Your task to perform on an android device: install app "Duolingo: language lessons" Image 0: 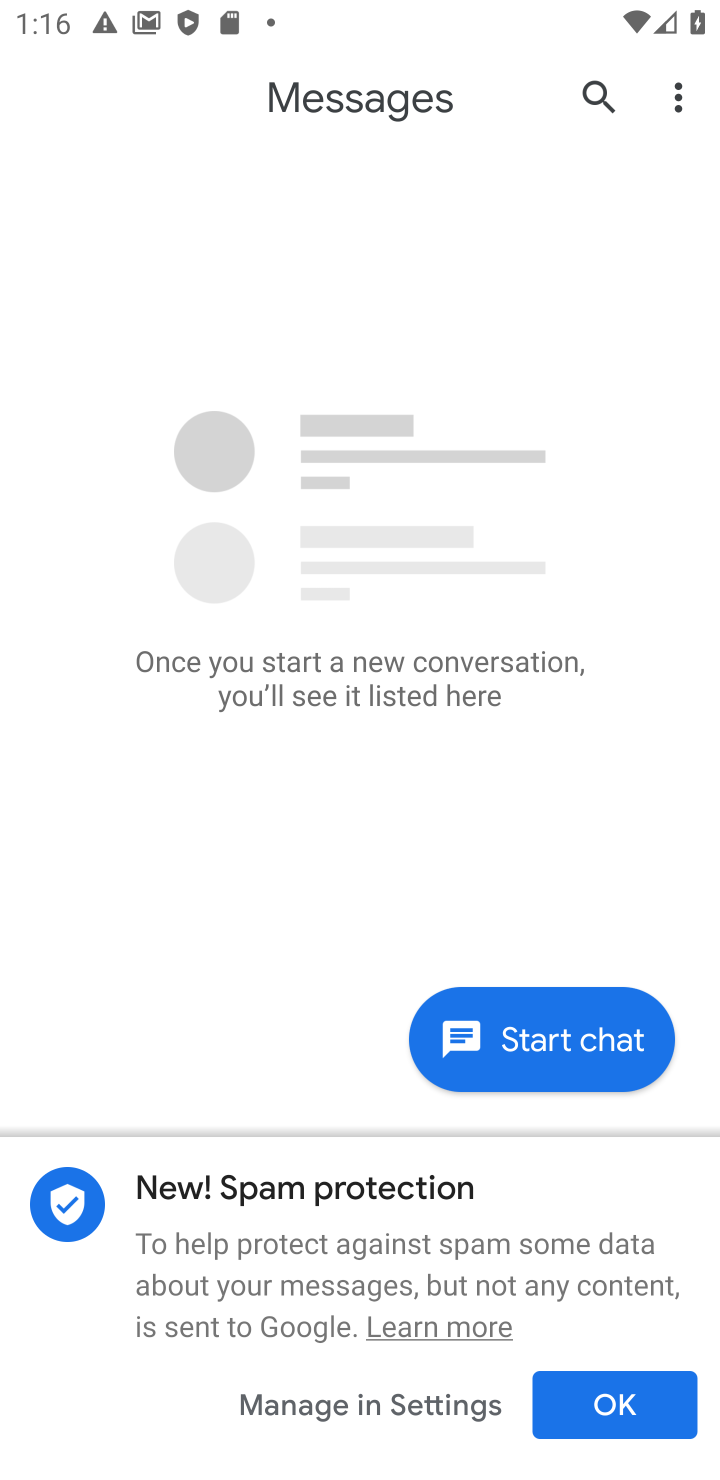
Step 0: press home button
Your task to perform on an android device: install app "Duolingo: language lessons" Image 1: 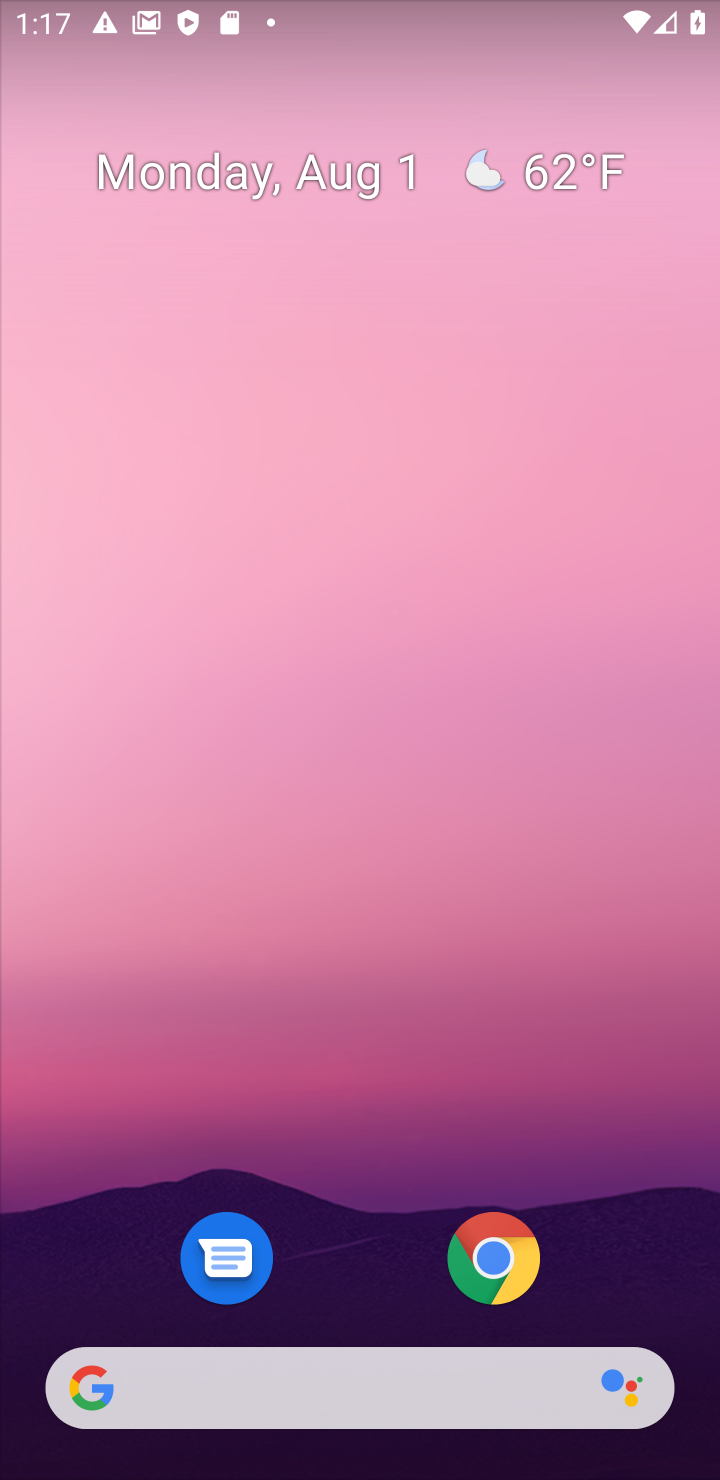
Step 1: drag from (433, 751) to (522, 19)
Your task to perform on an android device: install app "Duolingo: language lessons" Image 2: 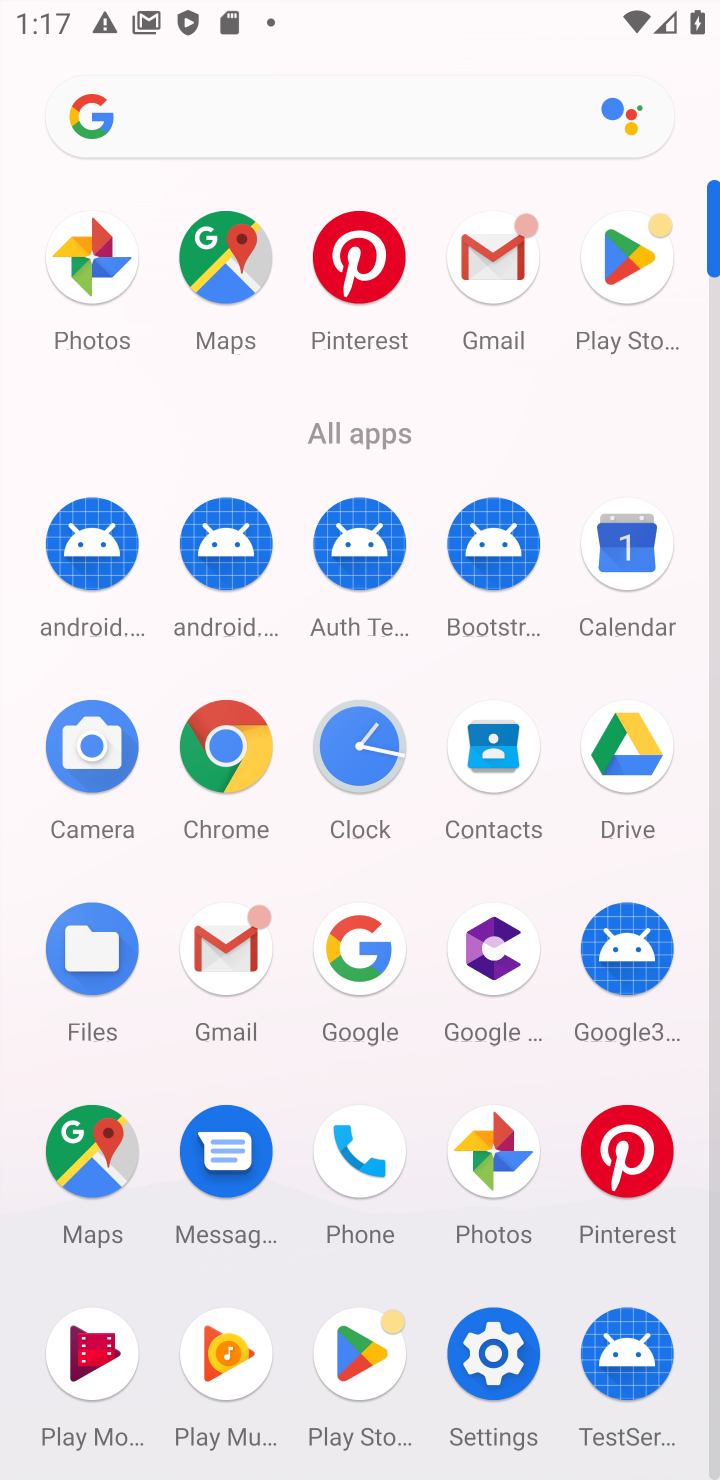
Step 2: click (616, 257)
Your task to perform on an android device: install app "Duolingo: language lessons" Image 3: 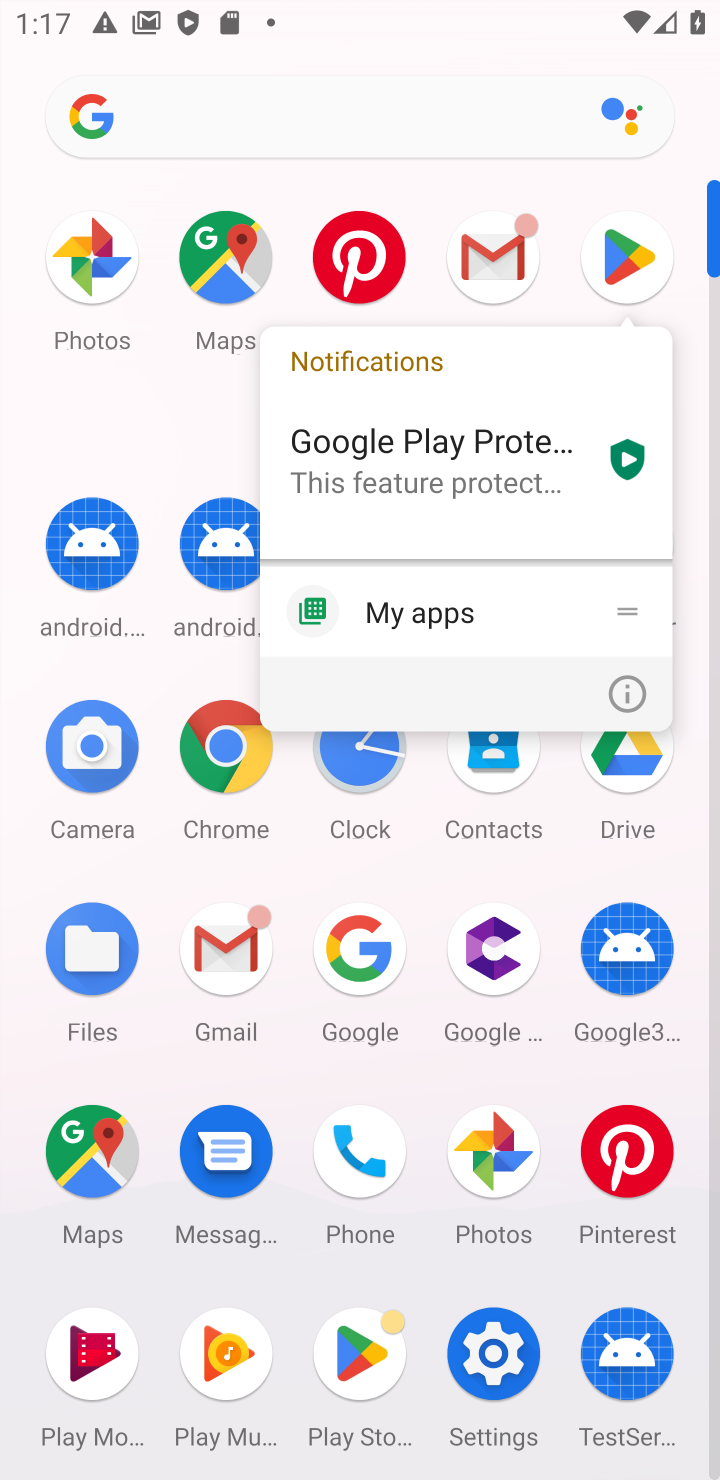
Step 3: click (634, 244)
Your task to perform on an android device: install app "Duolingo: language lessons" Image 4: 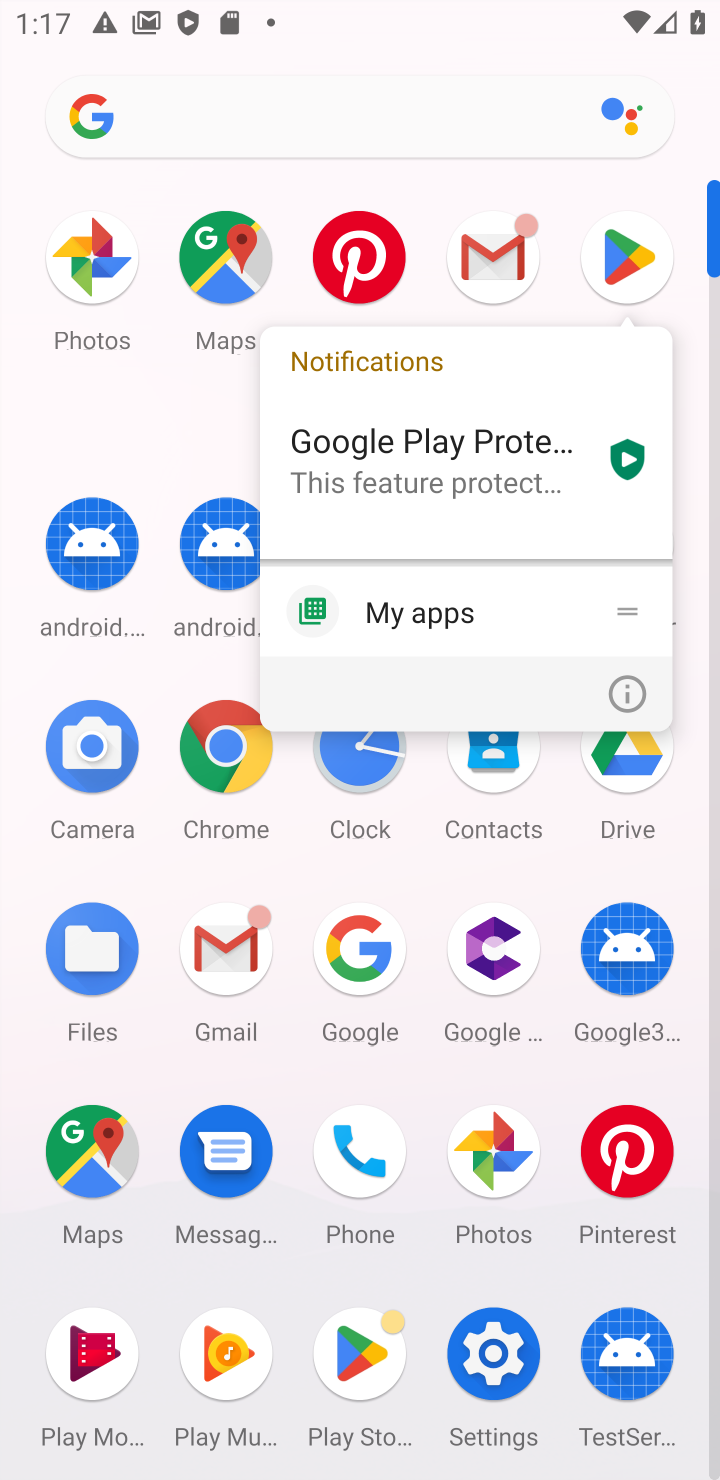
Step 4: click (634, 263)
Your task to perform on an android device: install app "Duolingo: language lessons" Image 5: 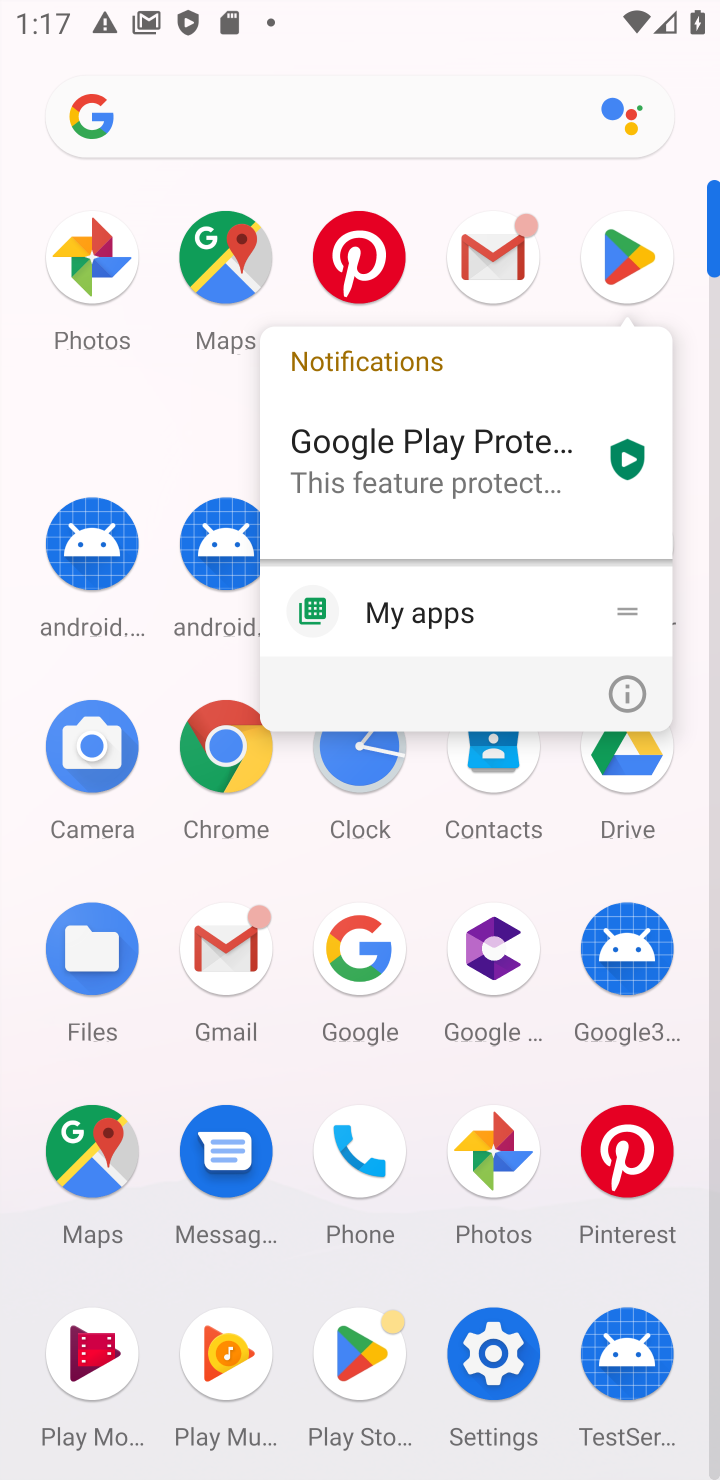
Step 5: click (641, 254)
Your task to perform on an android device: install app "Duolingo: language lessons" Image 6: 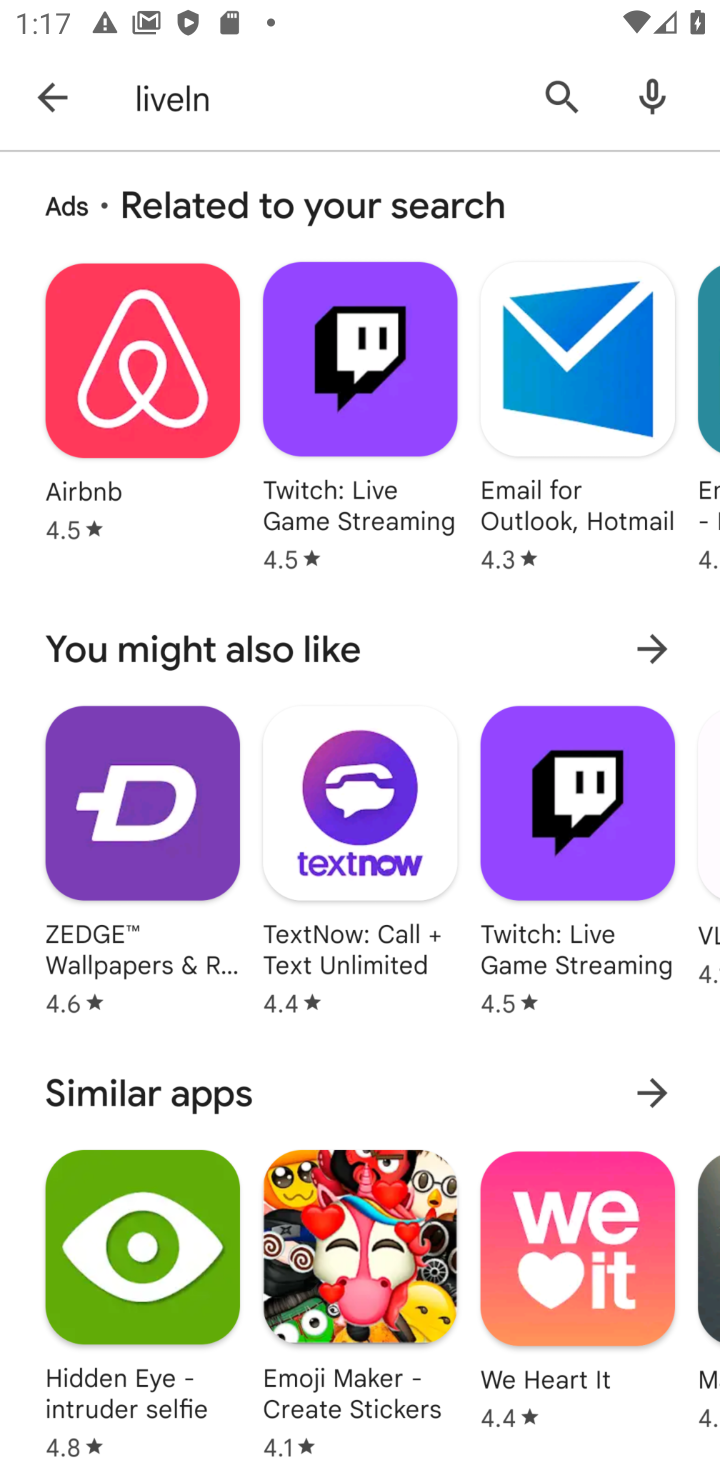
Step 6: click (634, 260)
Your task to perform on an android device: install app "Duolingo: language lessons" Image 7: 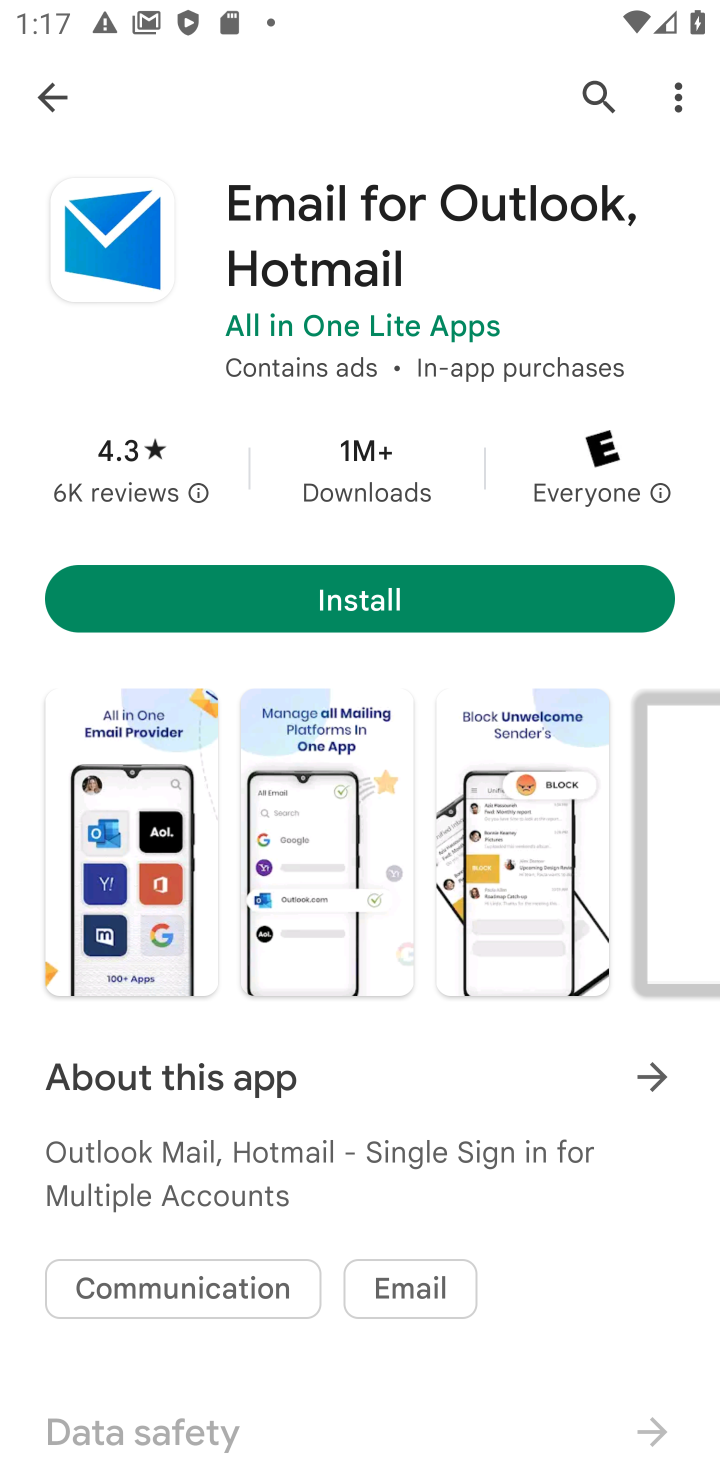
Step 7: click (581, 92)
Your task to perform on an android device: install app "Duolingo: language lessons" Image 8: 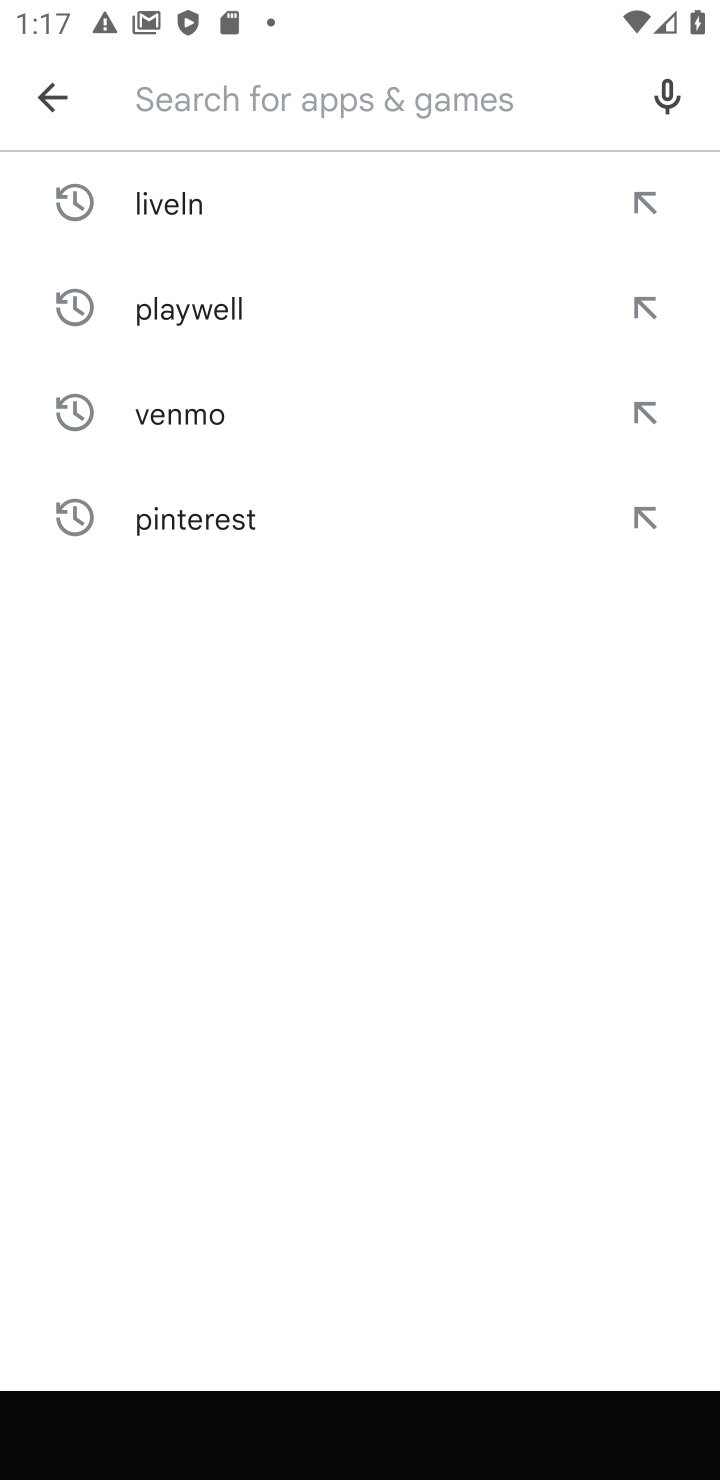
Step 8: click (401, 101)
Your task to perform on an android device: install app "Duolingo: language lessons" Image 9: 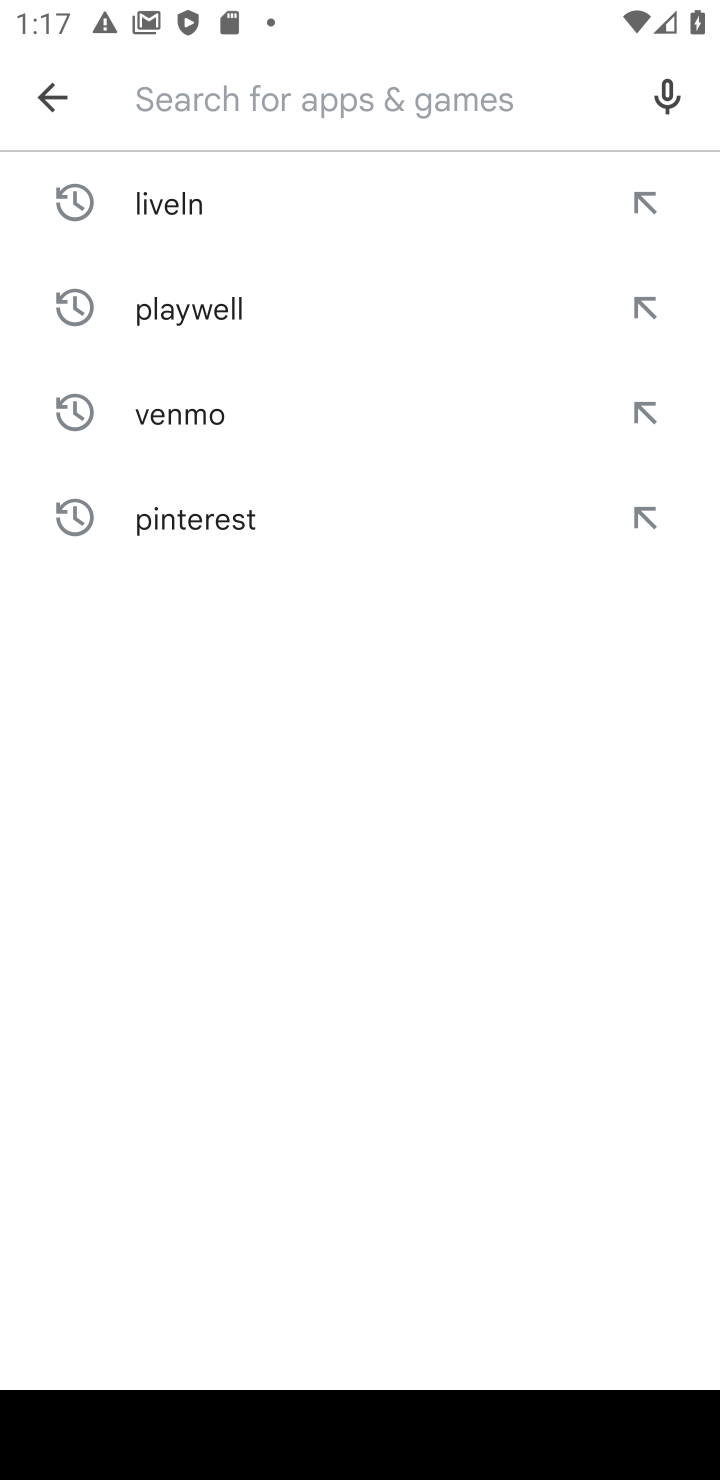
Step 9: click (303, 96)
Your task to perform on an android device: install app "Duolingo: language lessons" Image 10: 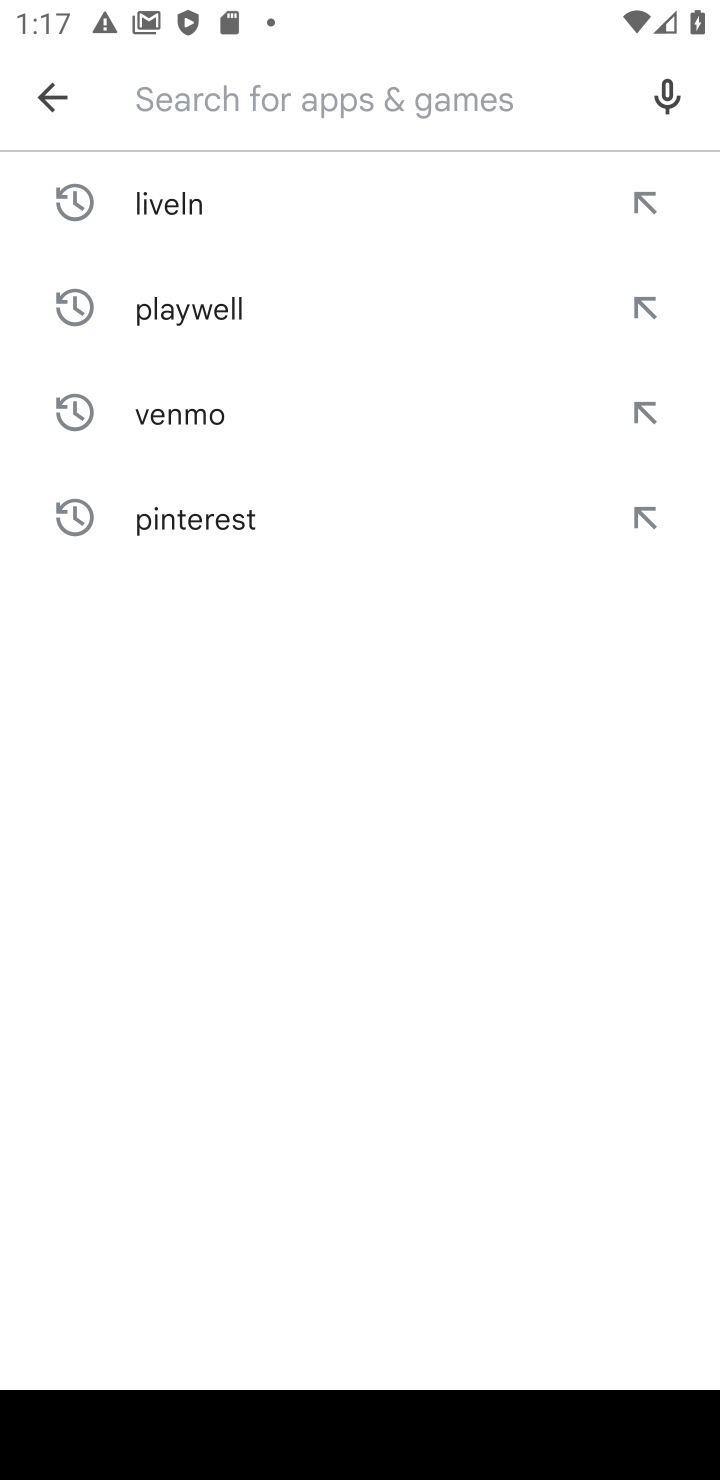
Step 10: type "Duolingo: language lessons"
Your task to perform on an android device: install app "Duolingo: language lessons" Image 11: 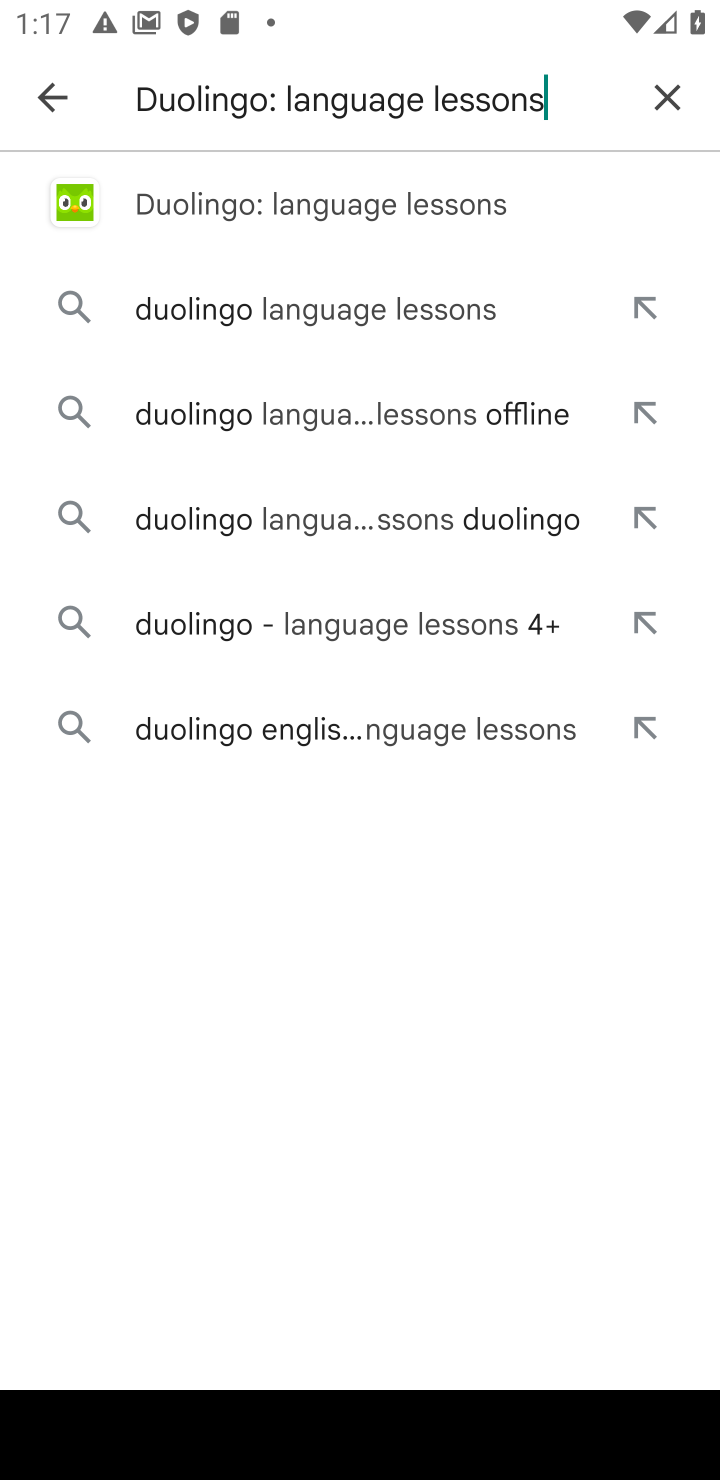
Step 11: click (392, 191)
Your task to perform on an android device: install app "Duolingo: language lessons" Image 12: 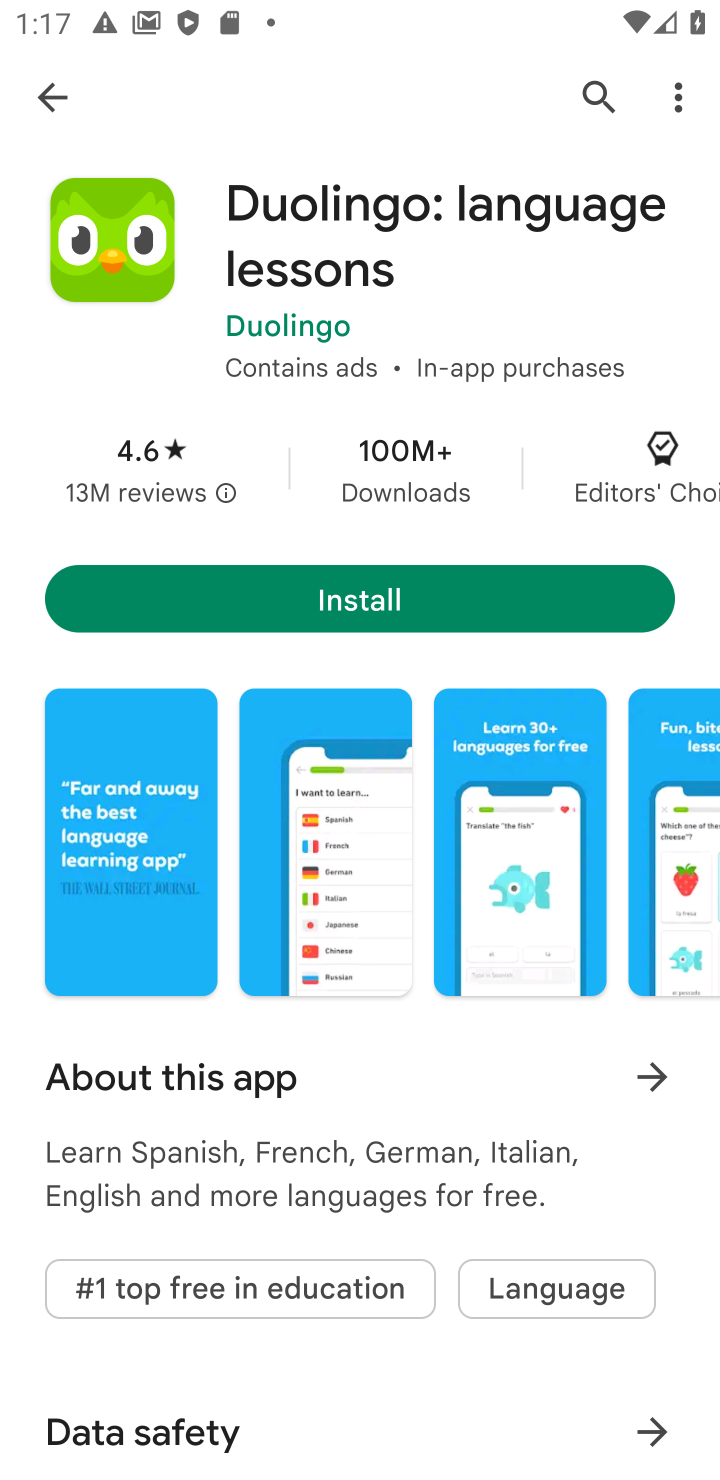
Step 12: click (382, 606)
Your task to perform on an android device: install app "Duolingo: language lessons" Image 13: 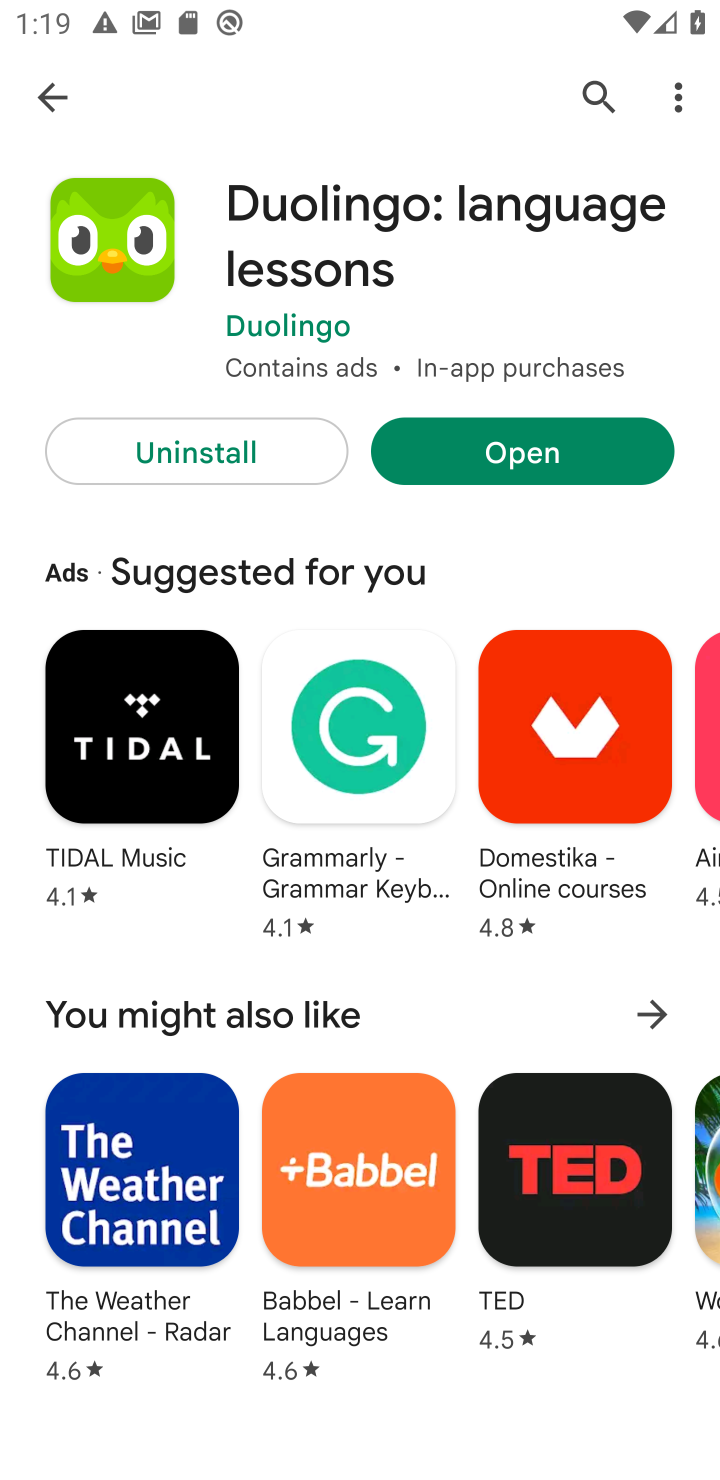
Step 13: click (515, 438)
Your task to perform on an android device: install app "Duolingo: language lessons" Image 14: 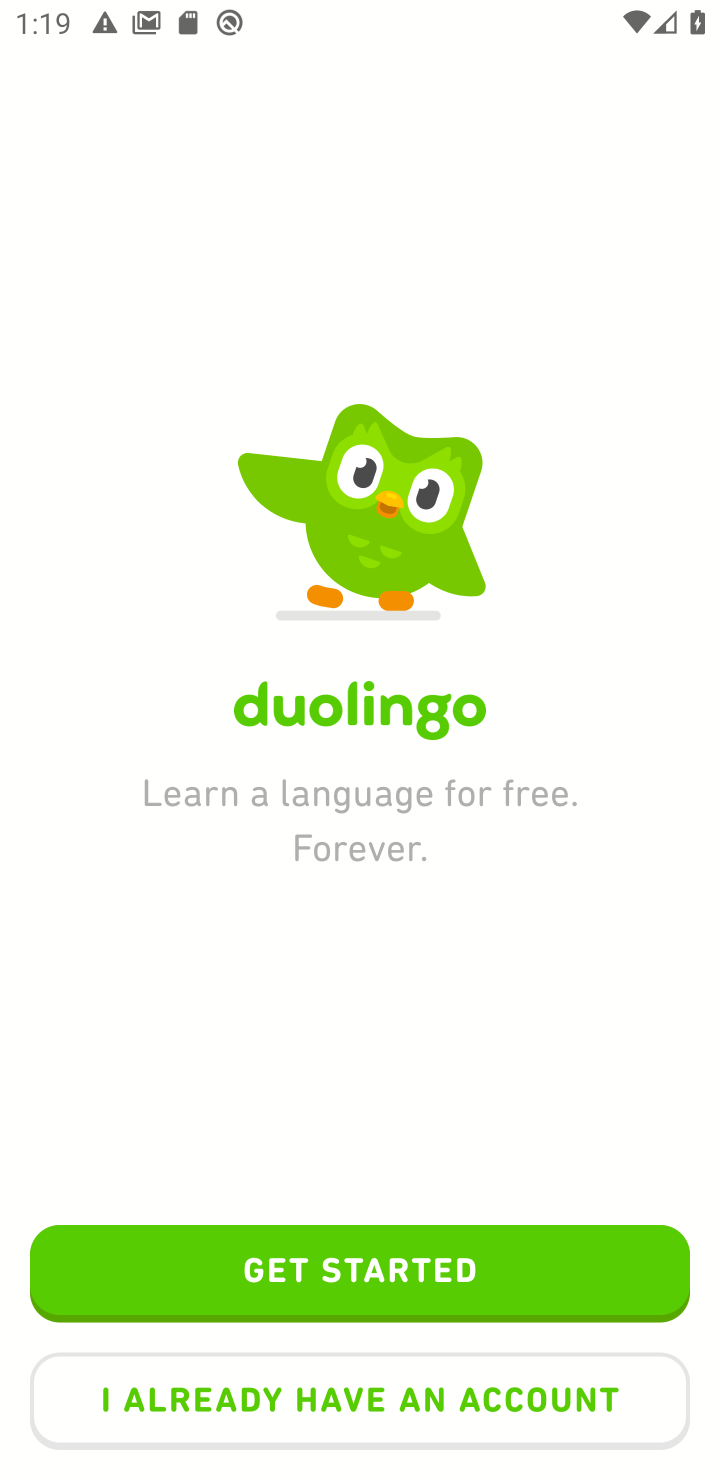
Step 14: task complete